Your task to perform on an android device: Open the web browser Image 0: 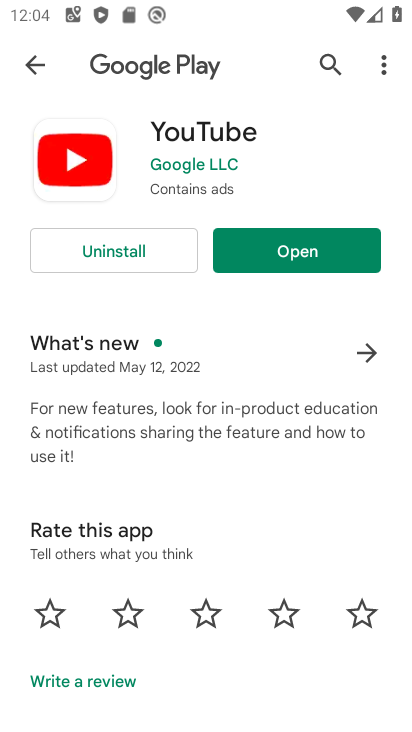
Step 0: press home button
Your task to perform on an android device: Open the web browser Image 1: 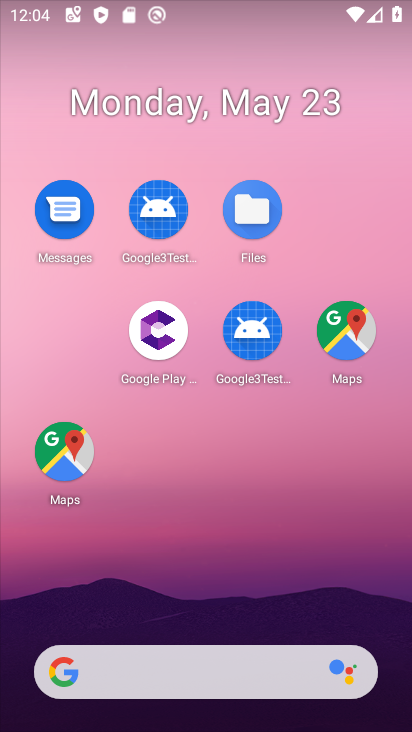
Step 1: drag from (210, 637) to (155, 226)
Your task to perform on an android device: Open the web browser Image 2: 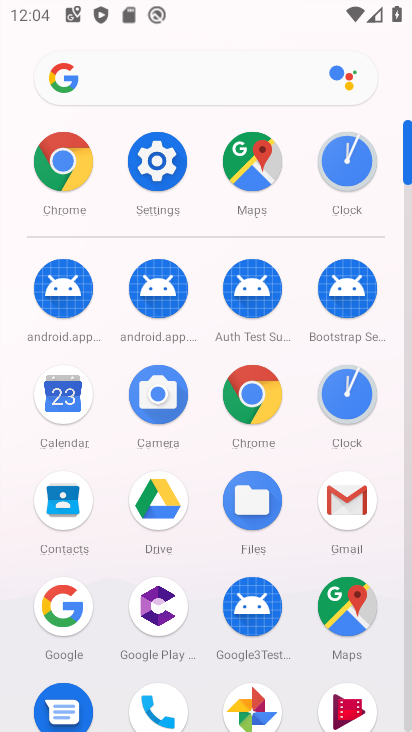
Step 2: click (66, 617)
Your task to perform on an android device: Open the web browser Image 3: 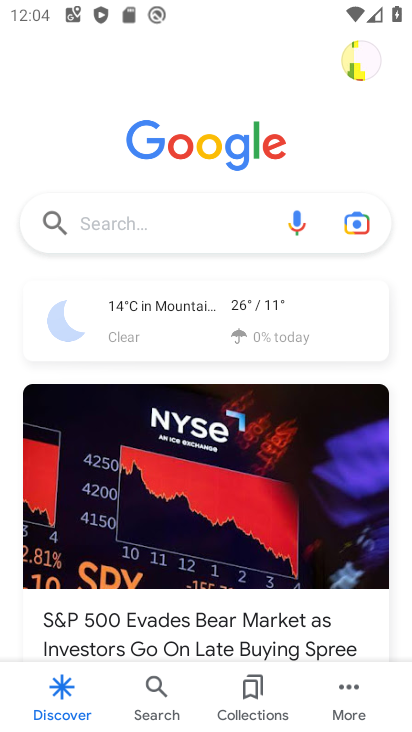
Step 3: click (210, 220)
Your task to perform on an android device: Open the web browser Image 4: 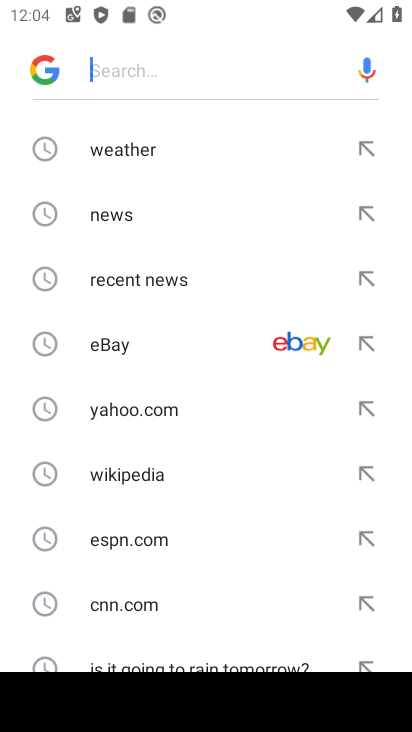
Step 4: task complete